Your task to perform on an android device: What's the weather going to be tomorrow? Image 0: 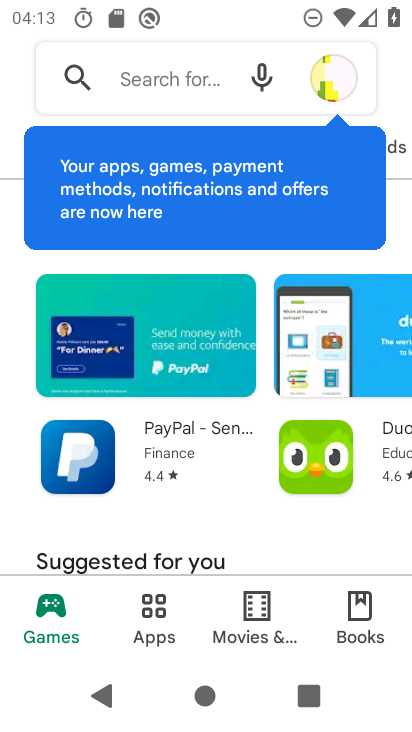
Step 0: press home button
Your task to perform on an android device: What's the weather going to be tomorrow? Image 1: 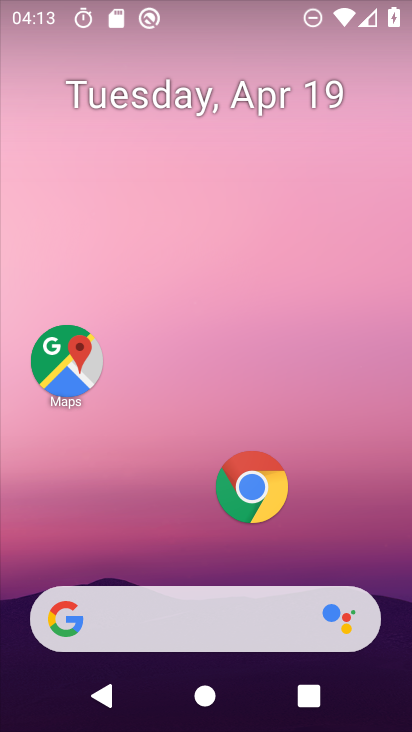
Step 1: click (174, 626)
Your task to perform on an android device: What's the weather going to be tomorrow? Image 2: 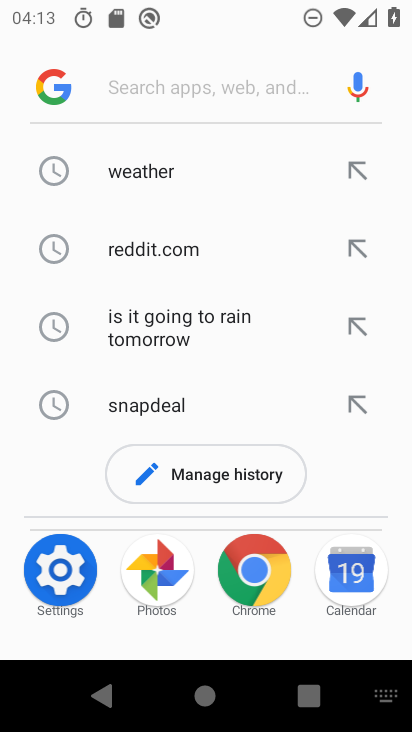
Step 2: click (159, 160)
Your task to perform on an android device: What's the weather going to be tomorrow? Image 3: 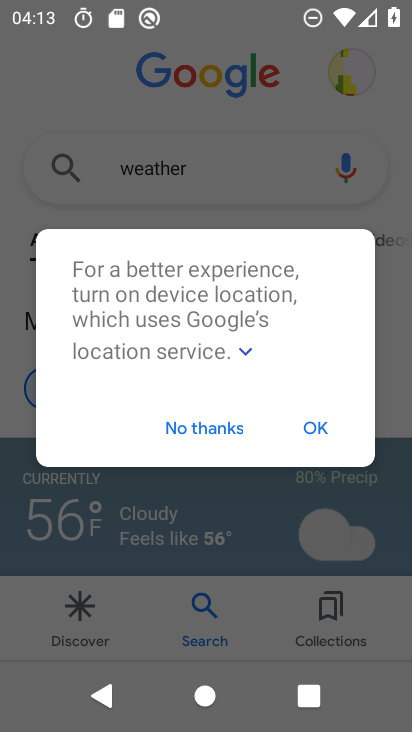
Step 3: click (322, 430)
Your task to perform on an android device: What's the weather going to be tomorrow? Image 4: 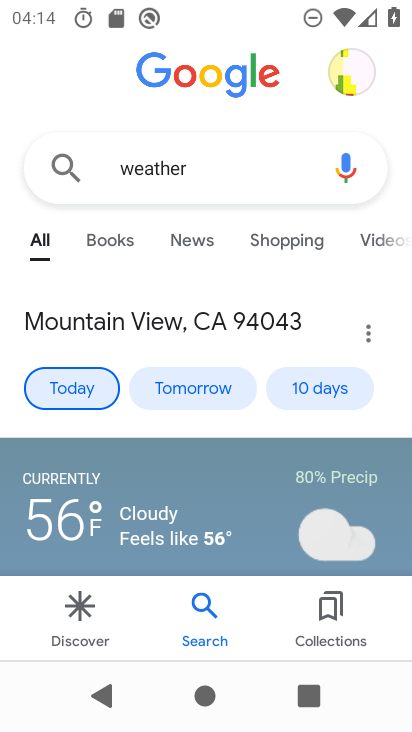
Step 4: click (164, 389)
Your task to perform on an android device: What's the weather going to be tomorrow? Image 5: 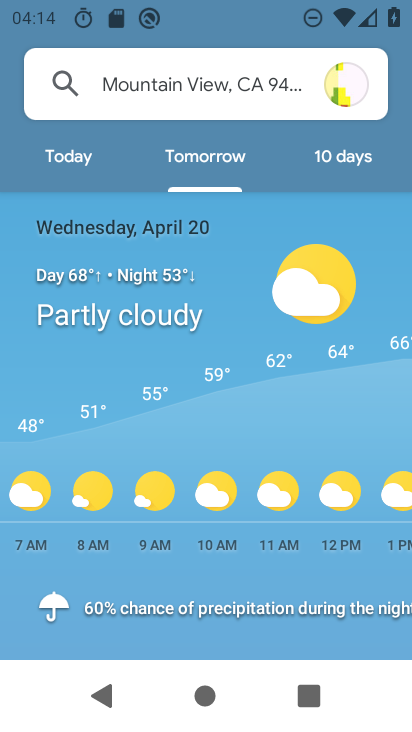
Step 5: task complete